Your task to perform on an android device: Is it going to rain today? Image 0: 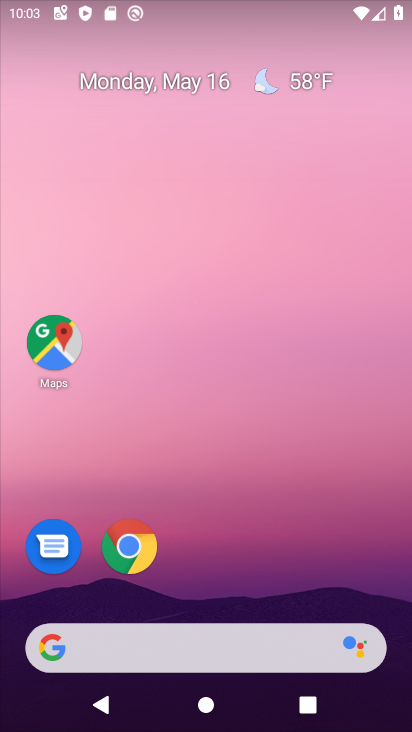
Step 0: drag from (221, 553) to (252, 134)
Your task to perform on an android device: Is it going to rain today? Image 1: 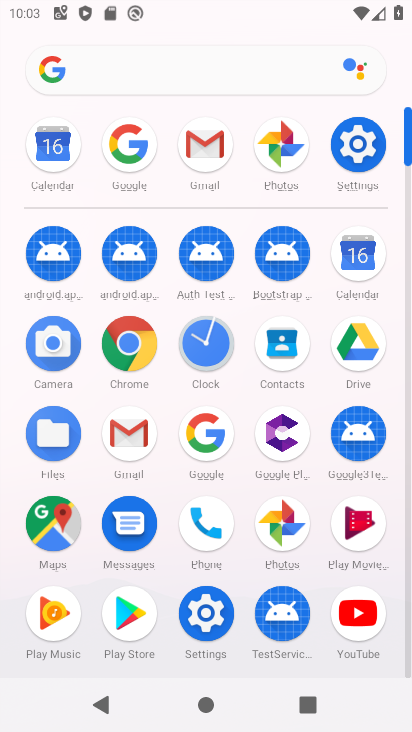
Step 1: click (202, 431)
Your task to perform on an android device: Is it going to rain today? Image 2: 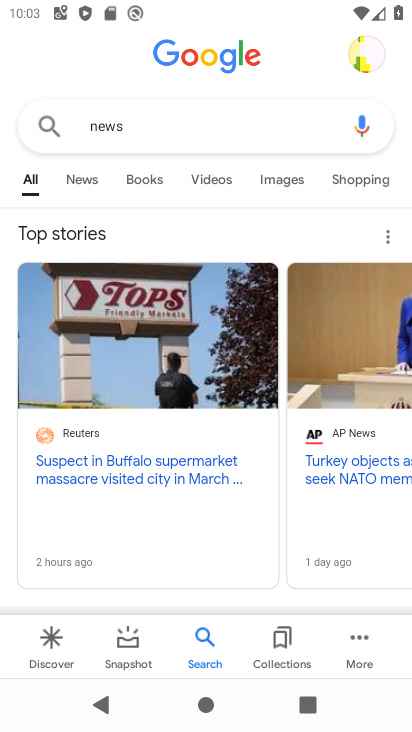
Step 2: click (190, 123)
Your task to perform on an android device: Is it going to rain today? Image 3: 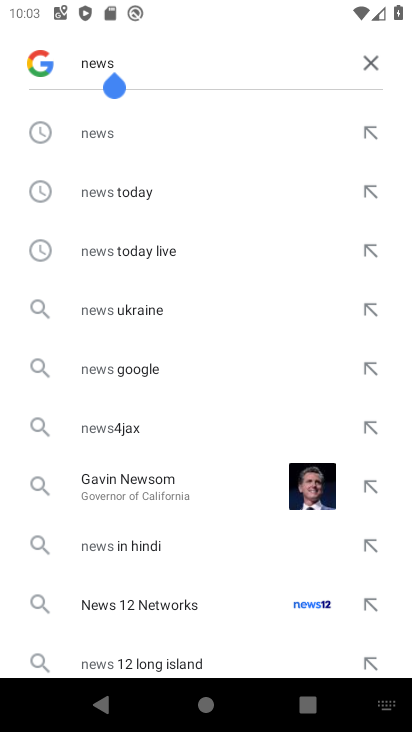
Step 3: click (372, 61)
Your task to perform on an android device: Is it going to rain today? Image 4: 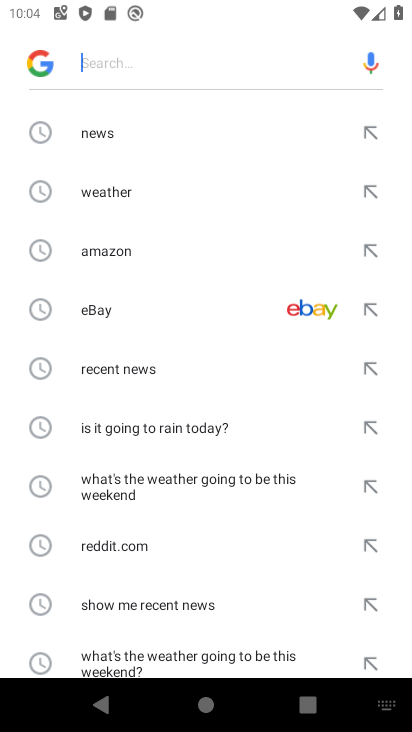
Step 4: click (132, 195)
Your task to perform on an android device: Is it going to rain today? Image 5: 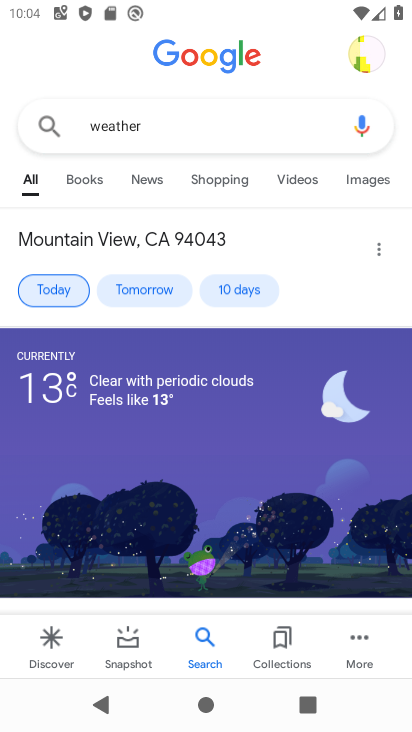
Step 5: task complete